Your task to perform on an android device: Add macbook to the cart on target, then select checkout. Image 0: 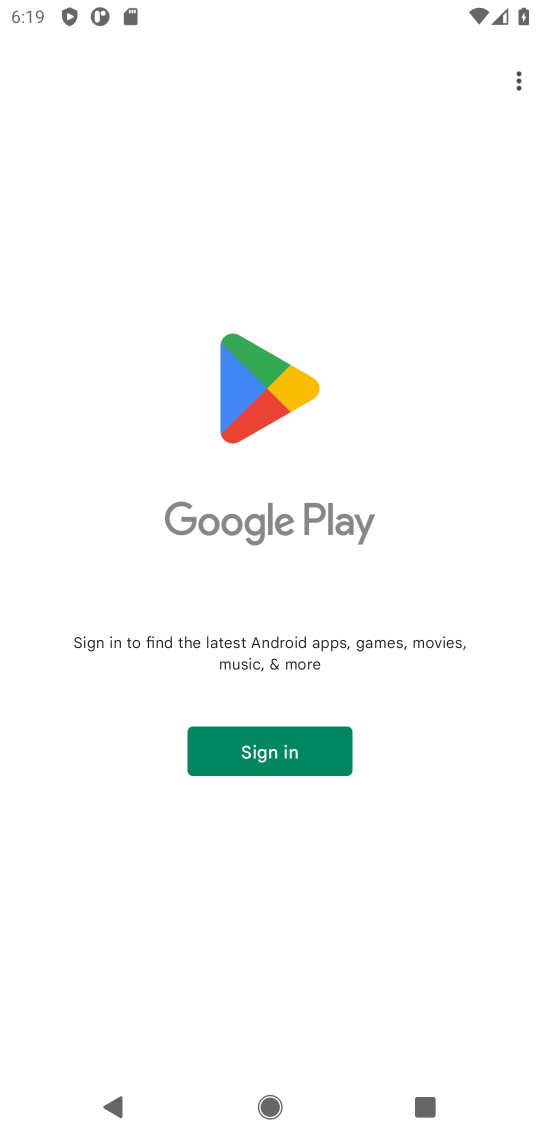
Step 0: press home button
Your task to perform on an android device: Add macbook to the cart on target, then select checkout. Image 1: 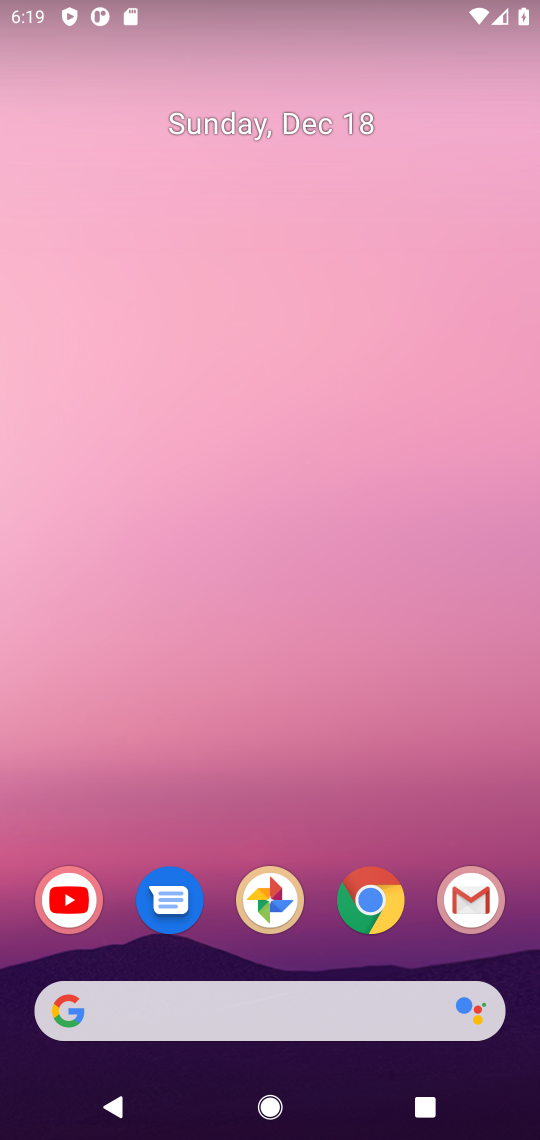
Step 1: click (373, 921)
Your task to perform on an android device: Add macbook to the cart on target, then select checkout. Image 2: 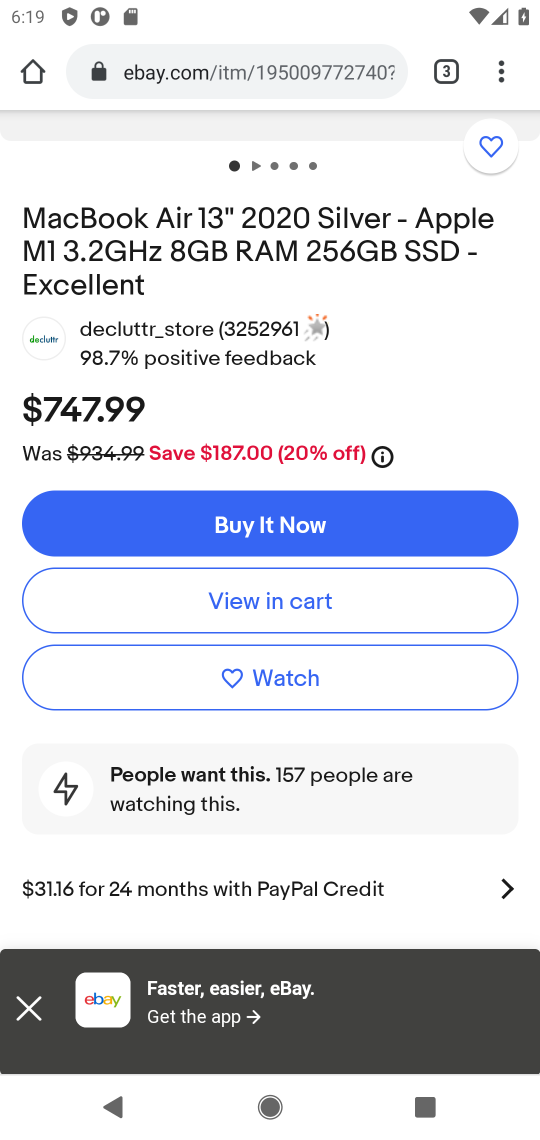
Step 2: click (448, 72)
Your task to perform on an android device: Add macbook to the cart on target, then select checkout. Image 3: 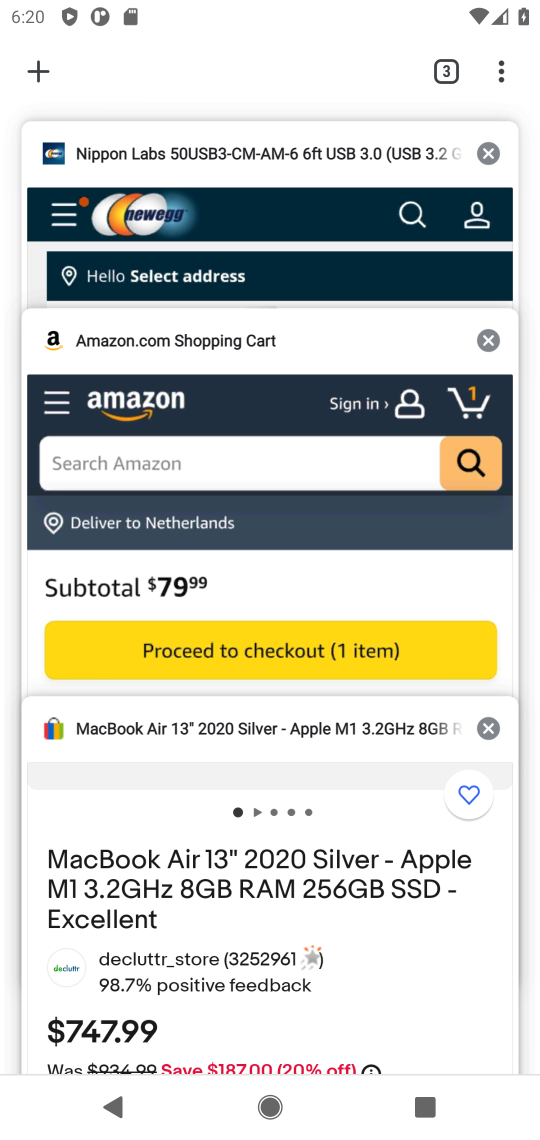
Step 3: click (39, 78)
Your task to perform on an android device: Add macbook to the cart on target, then select checkout. Image 4: 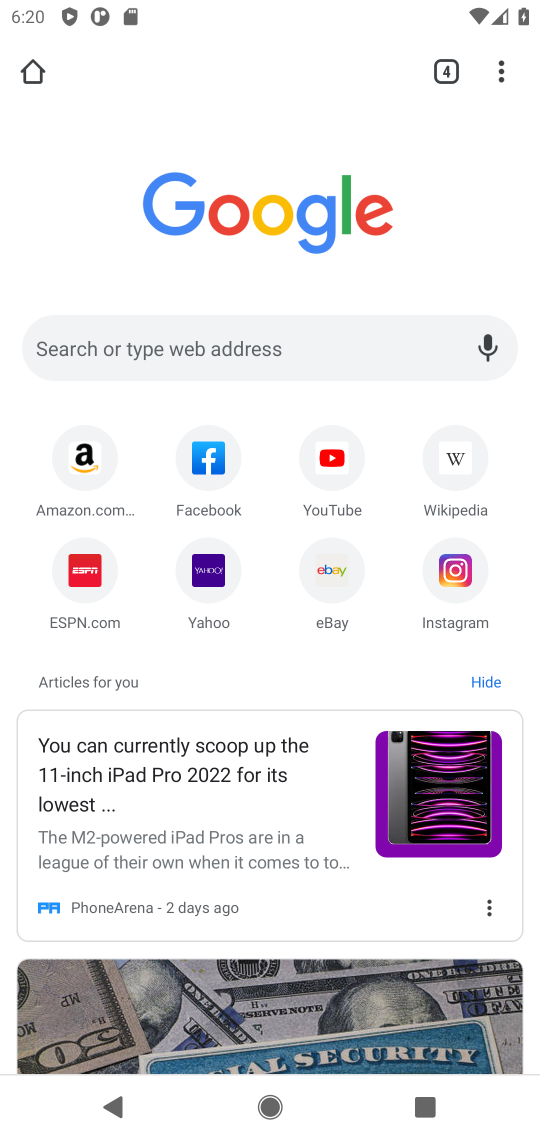
Step 4: click (236, 347)
Your task to perform on an android device: Add macbook to the cart on target, then select checkout. Image 5: 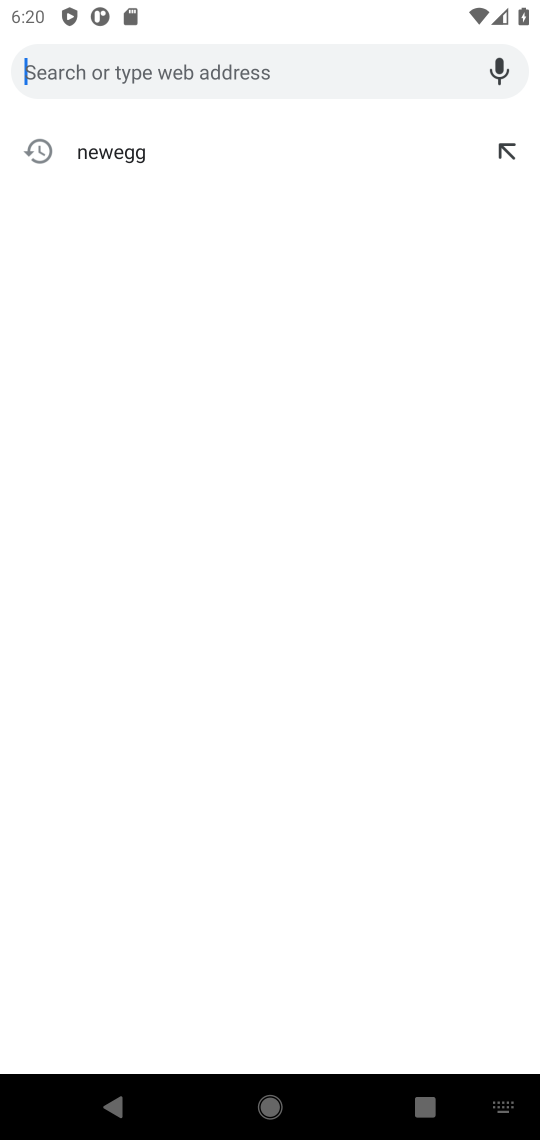
Step 5: type "target"
Your task to perform on an android device: Add macbook to the cart on target, then select checkout. Image 6: 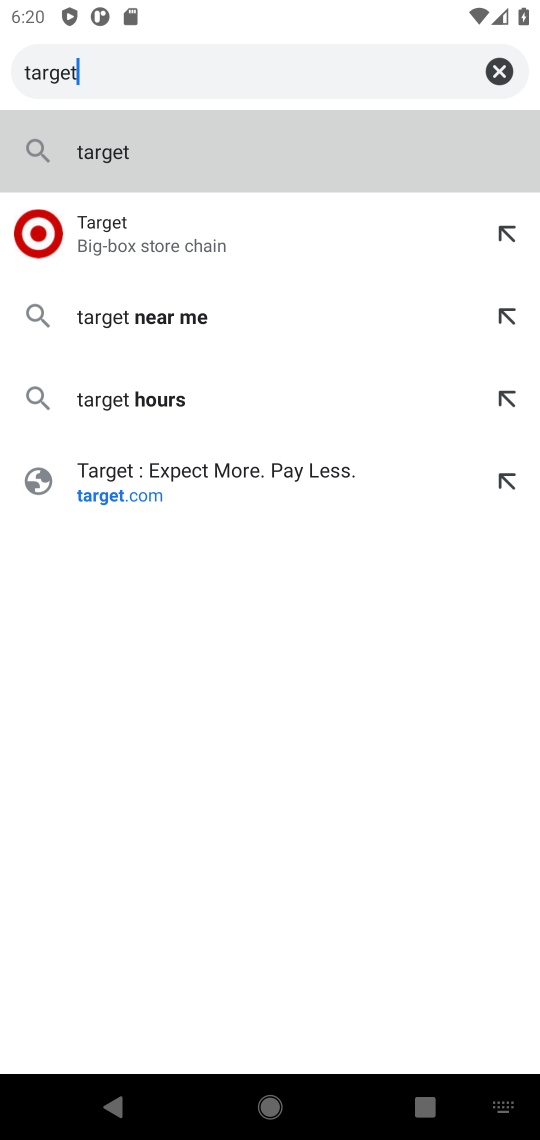
Step 6: click (154, 249)
Your task to perform on an android device: Add macbook to the cart on target, then select checkout. Image 7: 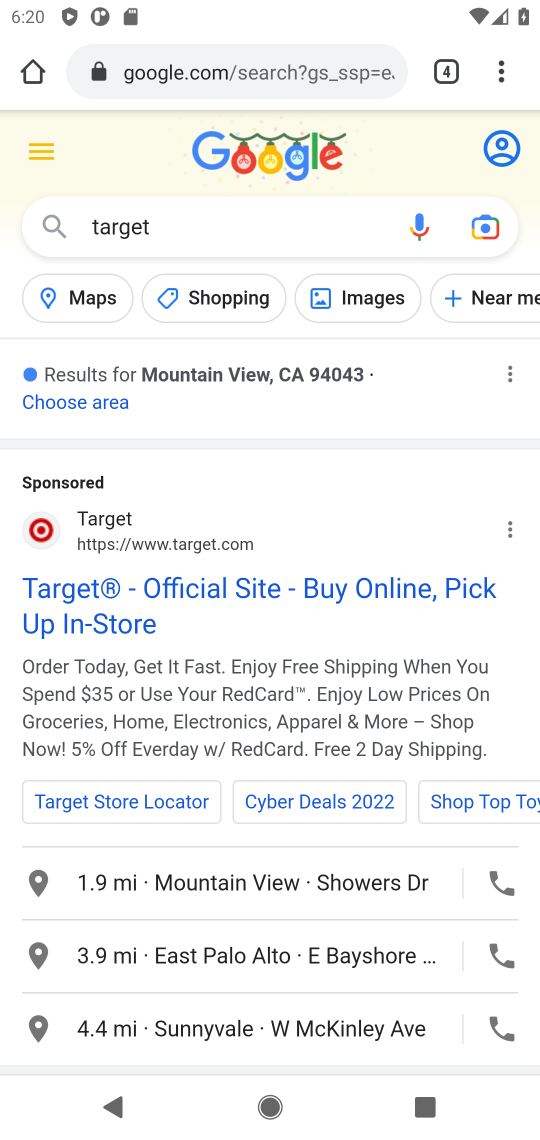
Step 7: click (79, 597)
Your task to perform on an android device: Add macbook to the cart on target, then select checkout. Image 8: 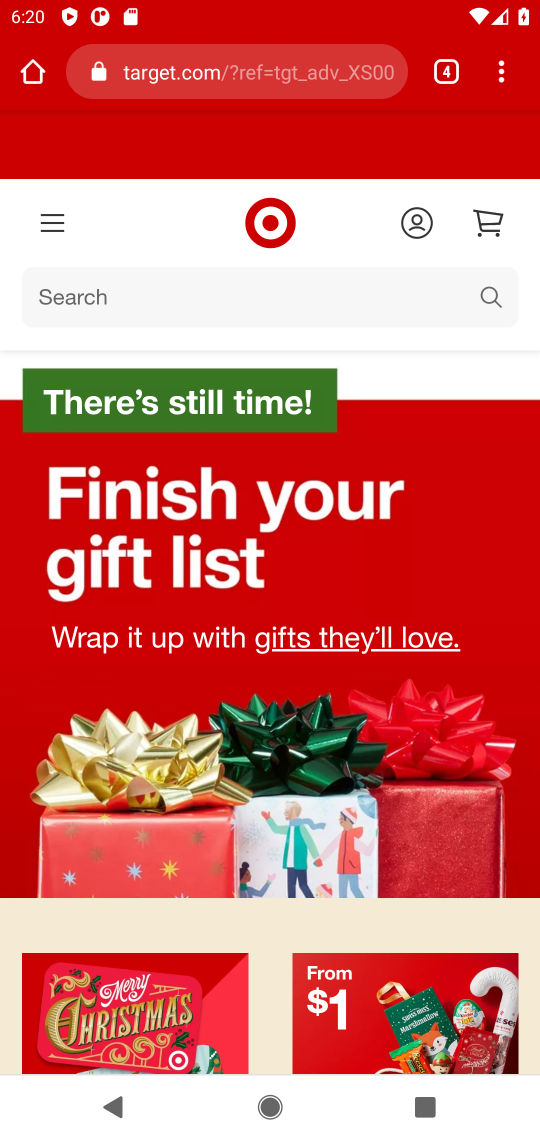
Step 8: click (213, 285)
Your task to perform on an android device: Add macbook to the cart on target, then select checkout. Image 9: 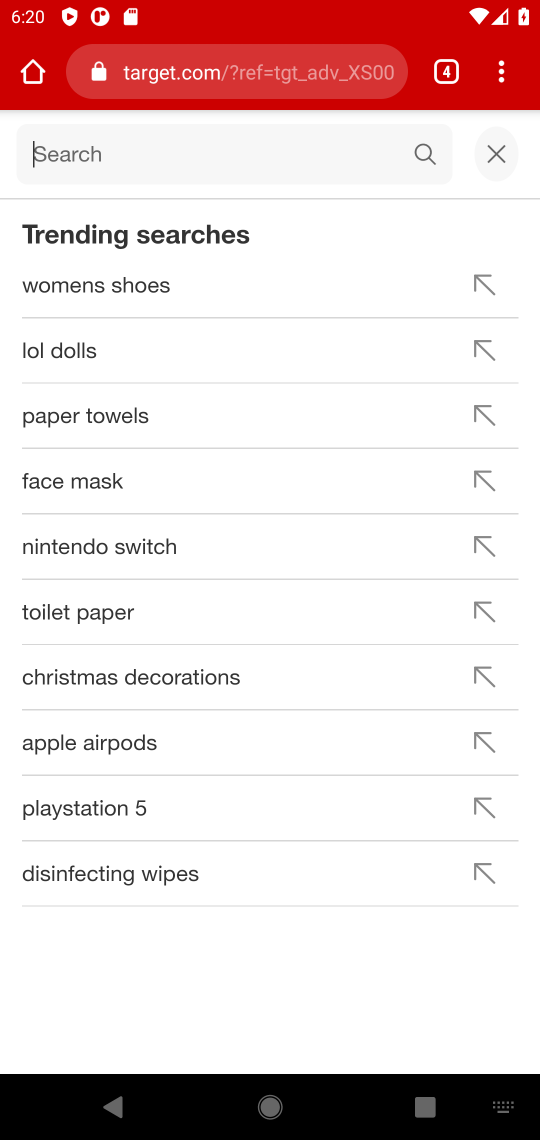
Step 9: type "macbook"
Your task to perform on an android device: Add macbook to the cart on target, then select checkout. Image 10: 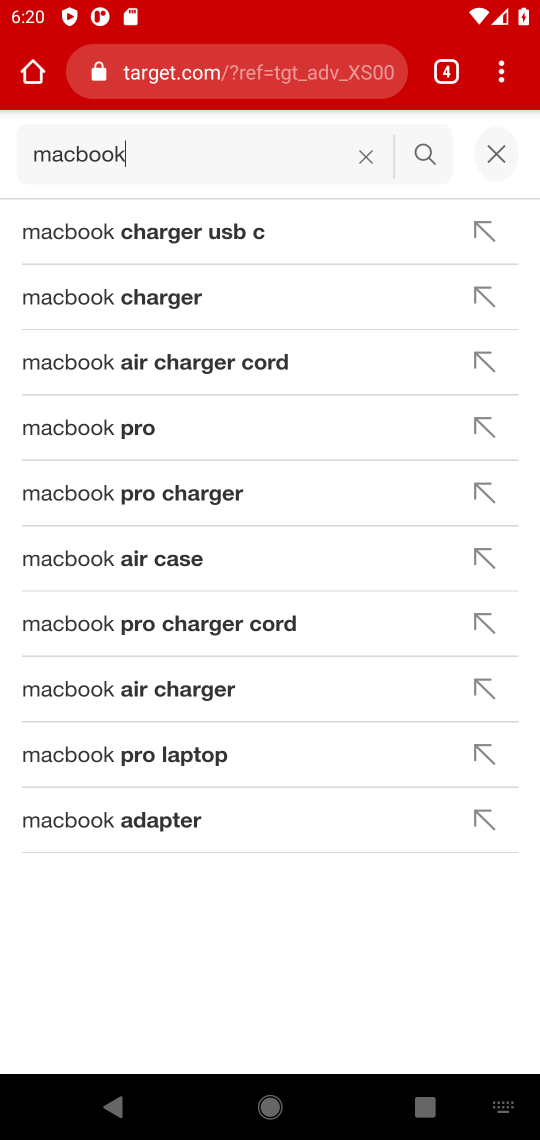
Step 10: type "'"
Your task to perform on an android device: Add macbook to the cart on target, then select checkout. Image 11: 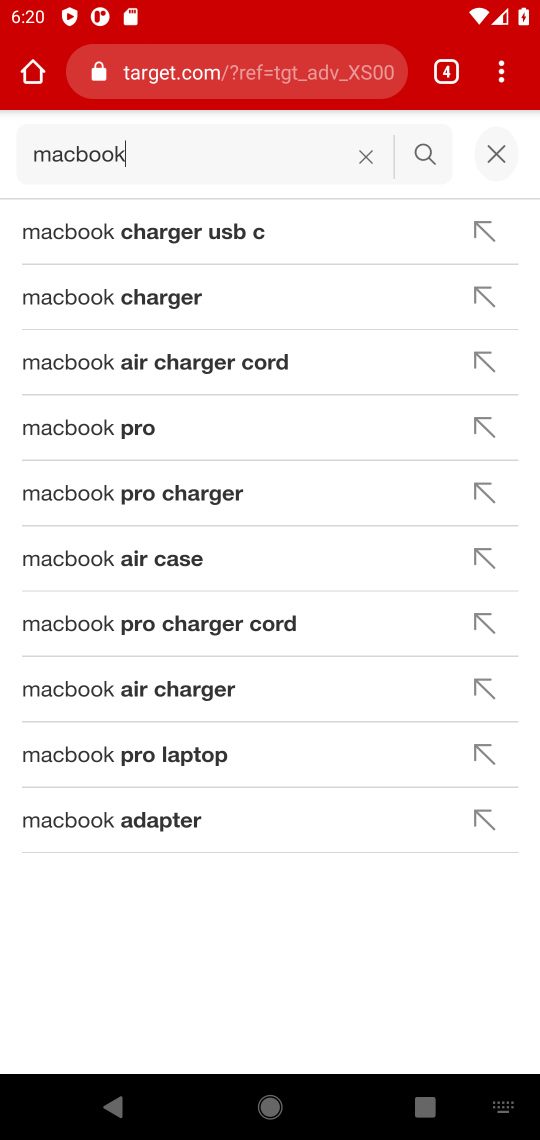
Step 11: click (91, 428)
Your task to perform on an android device: Add macbook to the cart on target, then select checkout. Image 12: 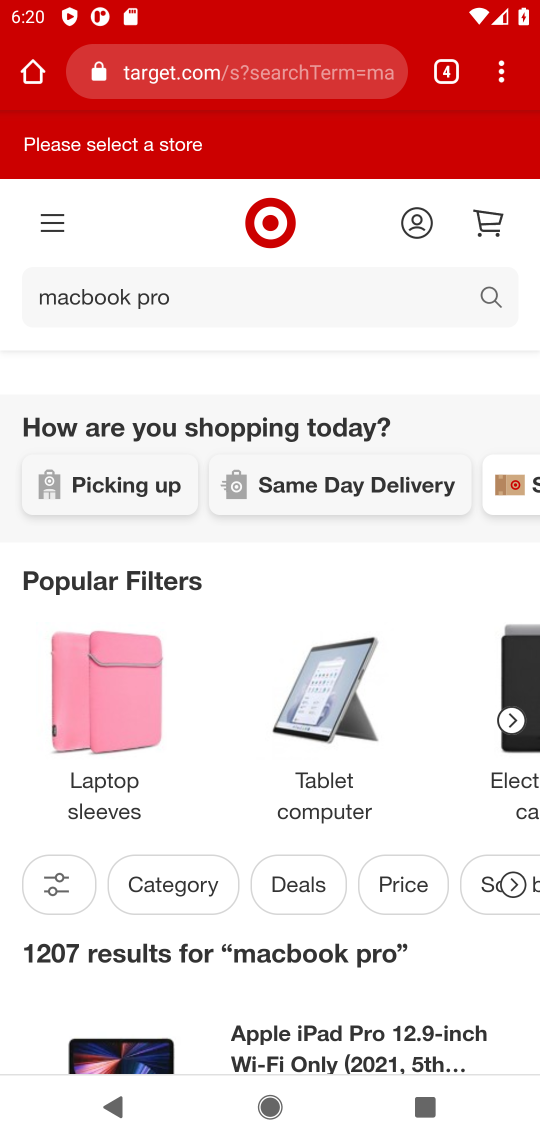
Step 12: task complete